Your task to perform on an android device: turn off priority inbox in the gmail app Image 0: 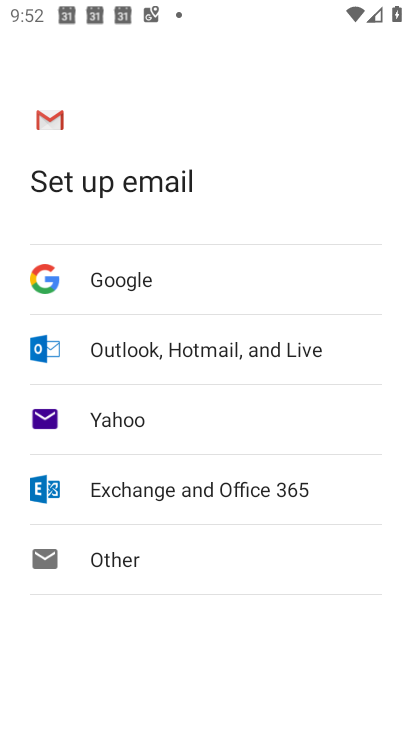
Step 0: press home button
Your task to perform on an android device: turn off priority inbox in the gmail app Image 1: 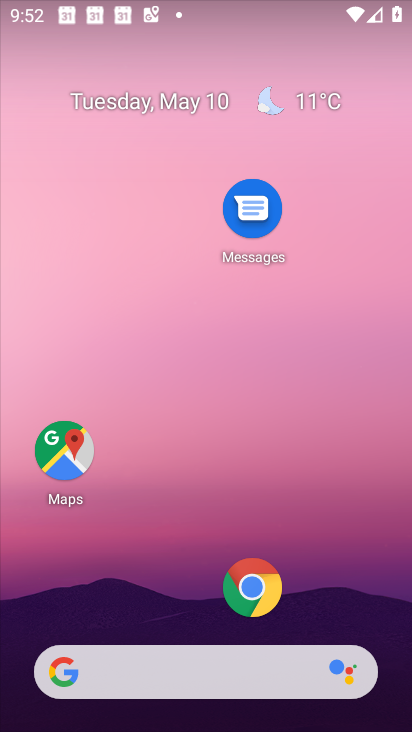
Step 1: drag from (144, 622) to (185, 236)
Your task to perform on an android device: turn off priority inbox in the gmail app Image 2: 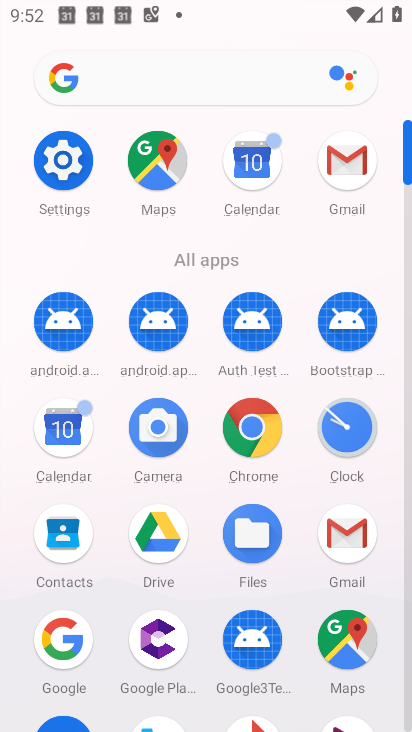
Step 2: click (356, 531)
Your task to perform on an android device: turn off priority inbox in the gmail app Image 3: 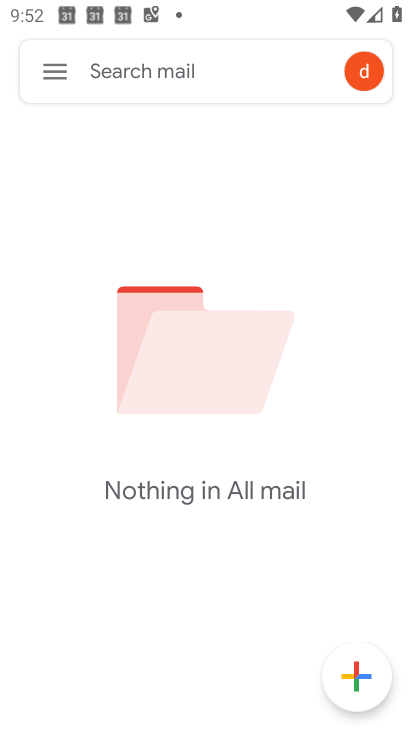
Step 3: click (49, 78)
Your task to perform on an android device: turn off priority inbox in the gmail app Image 4: 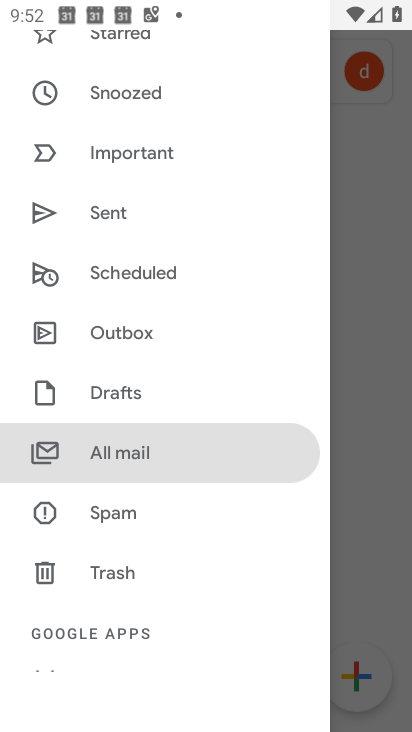
Step 4: drag from (138, 605) to (178, 223)
Your task to perform on an android device: turn off priority inbox in the gmail app Image 5: 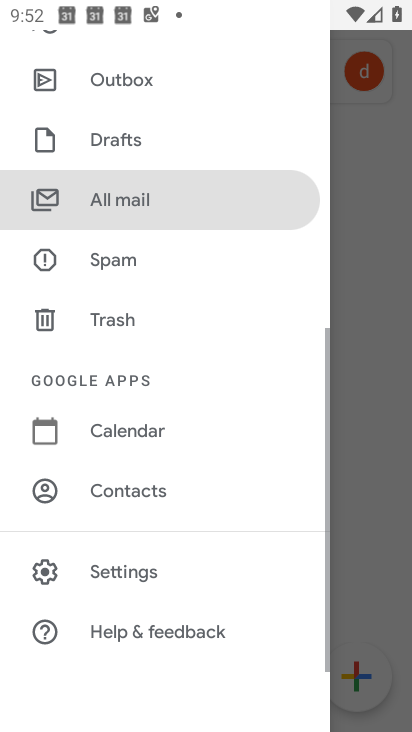
Step 5: click (137, 564)
Your task to perform on an android device: turn off priority inbox in the gmail app Image 6: 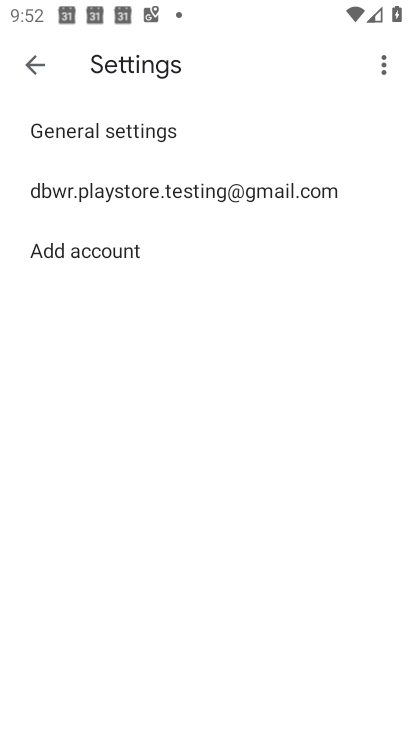
Step 6: click (103, 139)
Your task to perform on an android device: turn off priority inbox in the gmail app Image 7: 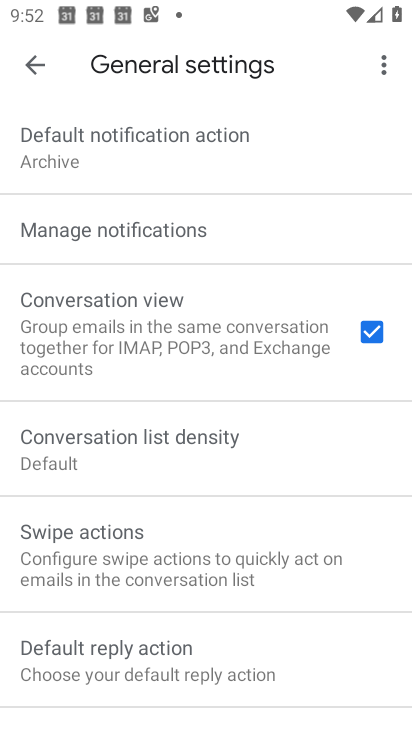
Step 7: click (44, 57)
Your task to perform on an android device: turn off priority inbox in the gmail app Image 8: 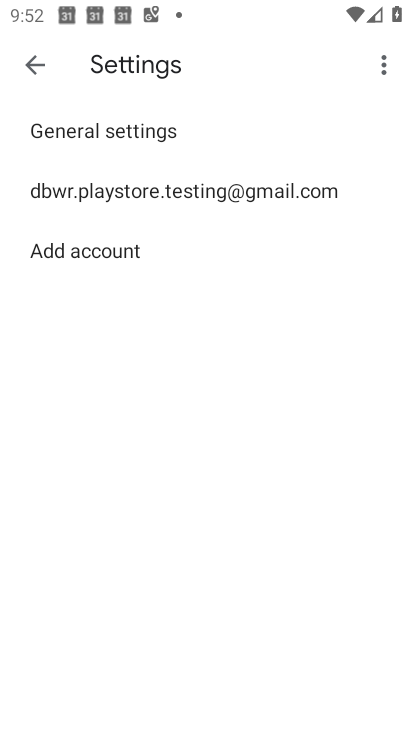
Step 8: click (181, 186)
Your task to perform on an android device: turn off priority inbox in the gmail app Image 9: 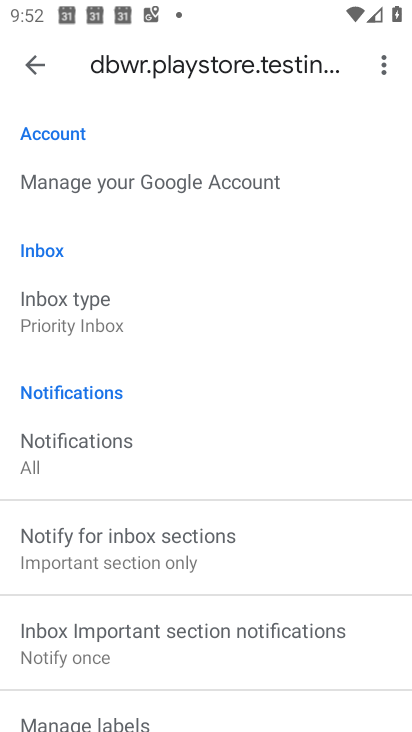
Step 9: click (121, 314)
Your task to perform on an android device: turn off priority inbox in the gmail app Image 10: 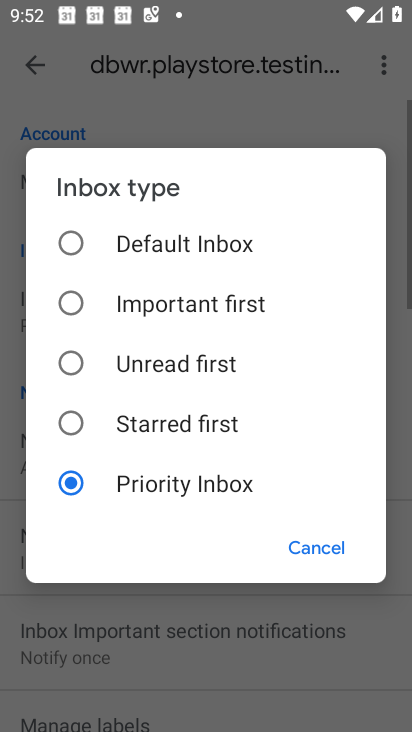
Step 10: click (106, 257)
Your task to perform on an android device: turn off priority inbox in the gmail app Image 11: 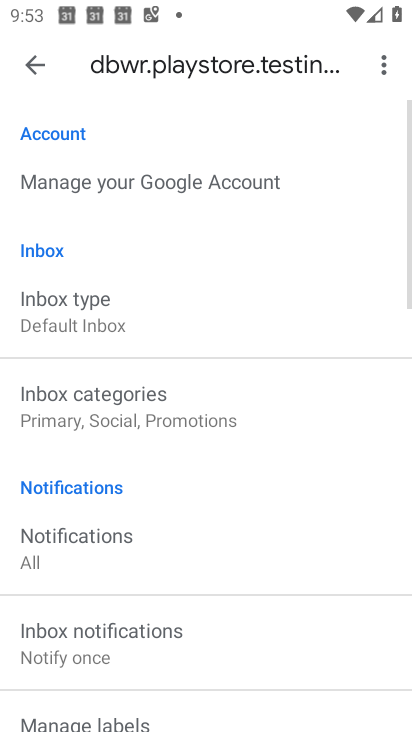
Step 11: task complete